Your task to perform on an android device: see sites visited before in the chrome app Image 0: 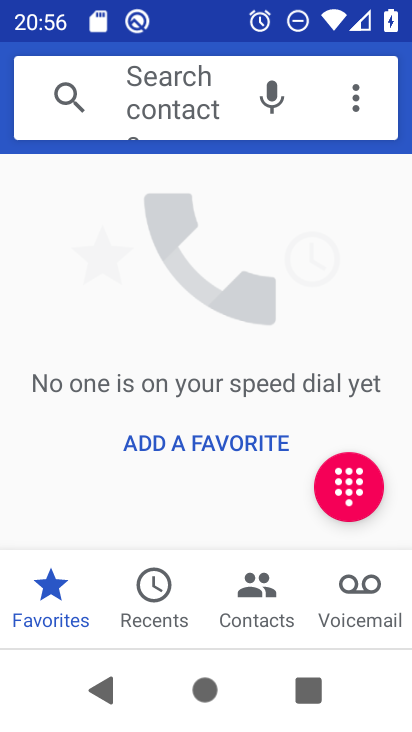
Step 0: press home button
Your task to perform on an android device: see sites visited before in the chrome app Image 1: 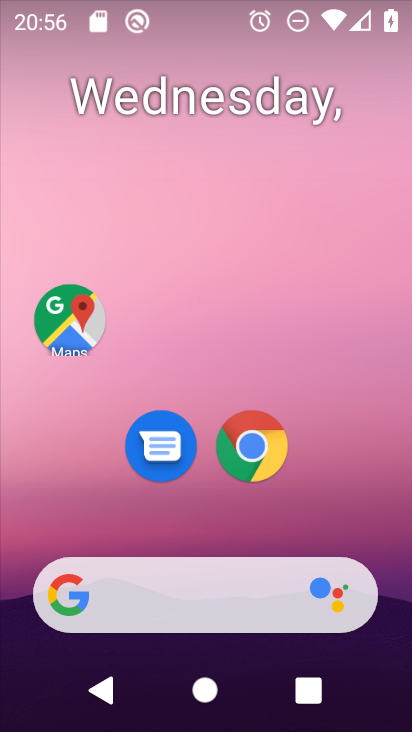
Step 1: click (245, 483)
Your task to perform on an android device: see sites visited before in the chrome app Image 2: 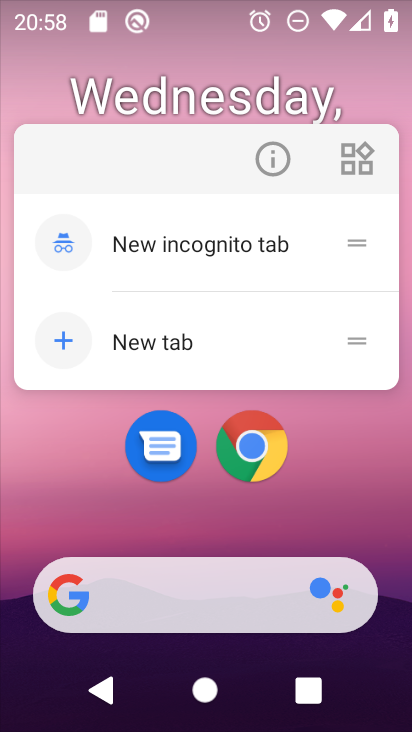
Step 2: click (248, 450)
Your task to perform on an android device: see sites visited before in the chrome app Image 3: 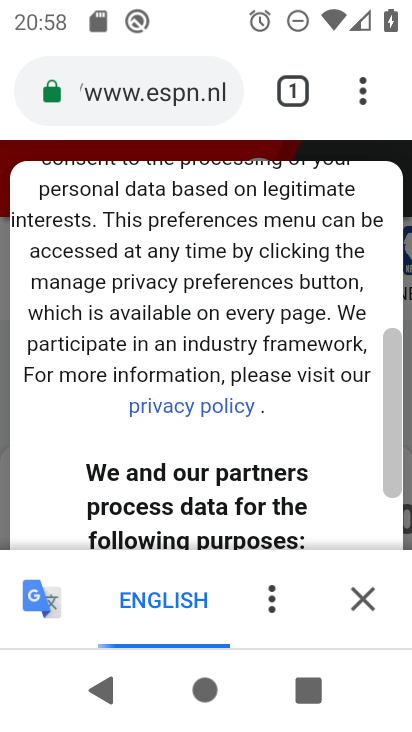
Step 3: task complete